Your task to perform on an android device: turn off wifi Image 0: 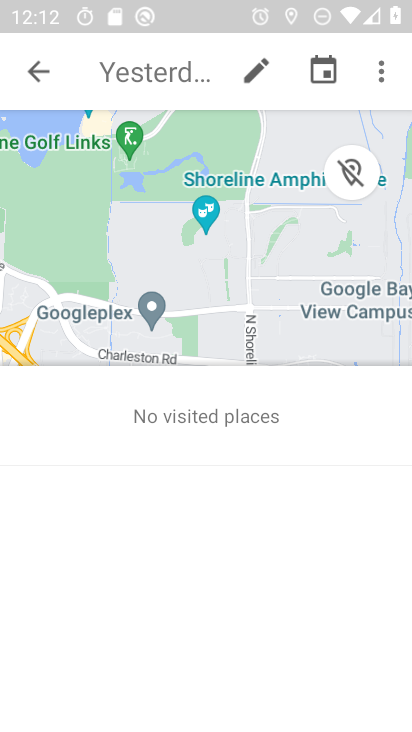
Step 0: press home button
Your task to perform on an android device: turn off wifi Image 1: 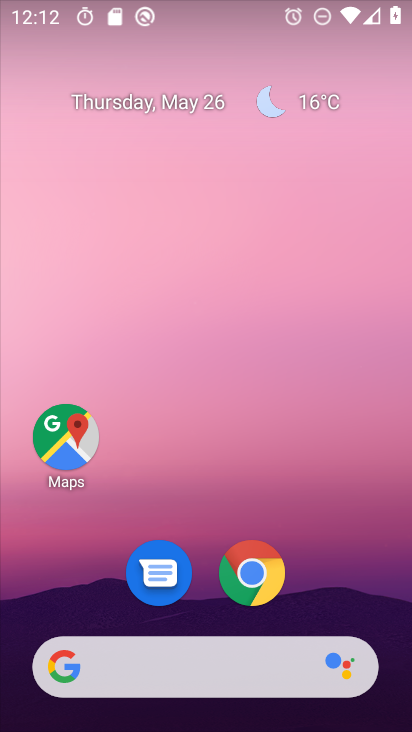
Step 1: drag from (357, 580) to (376, 23)
Your task to perform on an android device: turn off wifi Image 2: 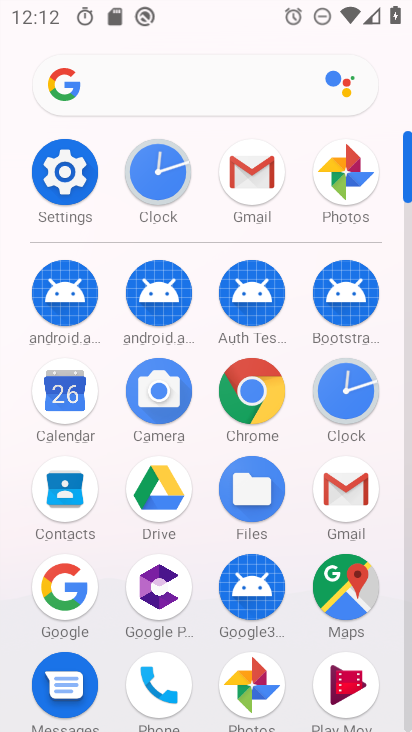
Step 2: click (57, 169)
Your task to perform on an android device: turn off wifi Image 3: 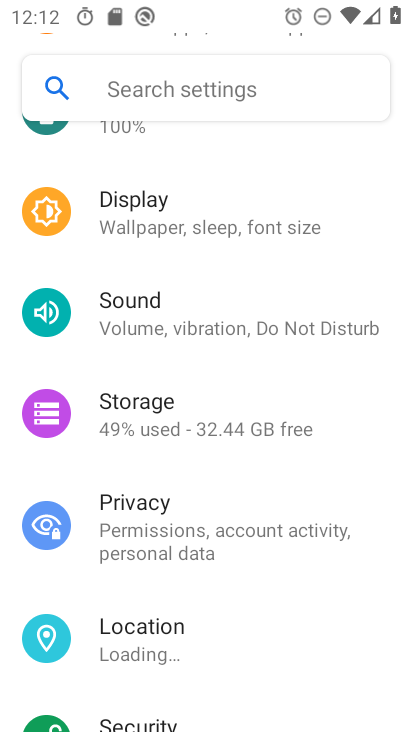
Step 3: drag from (239, 168) to (260, 405)
Your task to perform on an android device: turn off wifi Image 4: 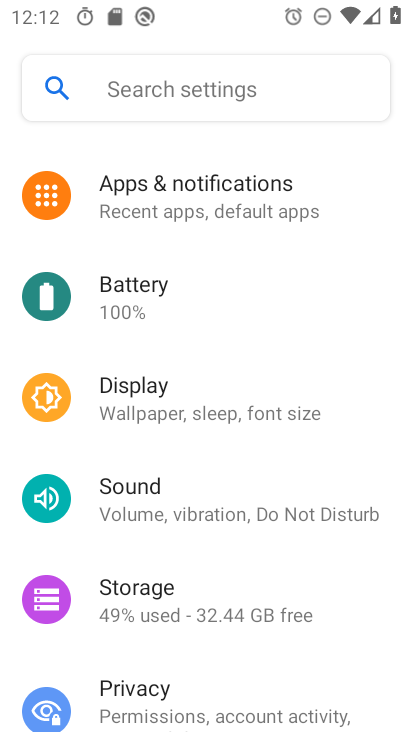
Step 4: drag from (253, 235) to (262, 463)
Your task to perform on an android device: turn off wifi Image 5: 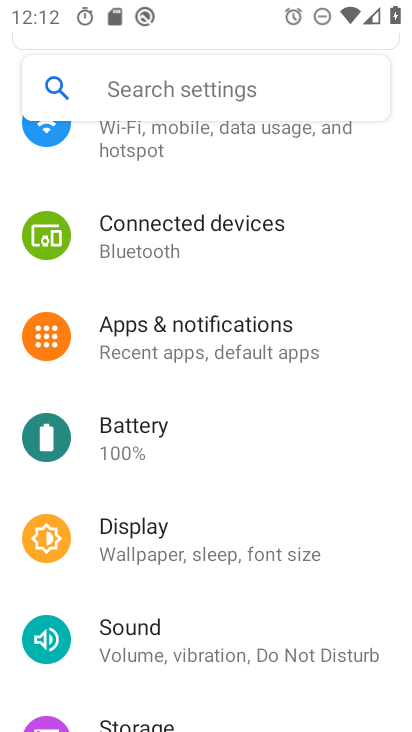
Step 5: drag from (191, 185) to (202, 377)
Your task to perform on an android device: turn off wifi Image 6: 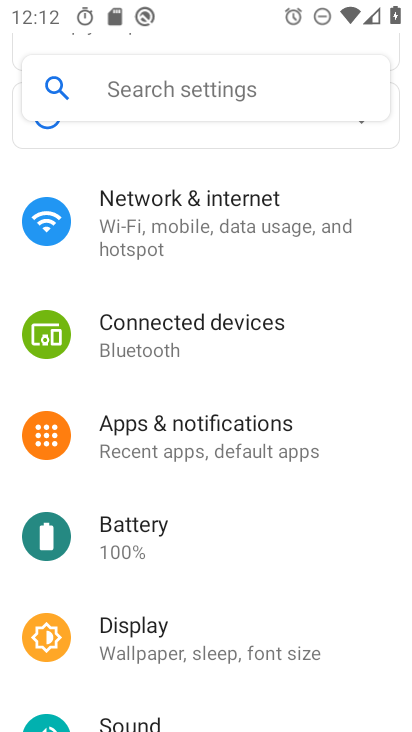
Step 6: click (162, 233)
Your task to perform on an android device: turn off wifi Image 7: 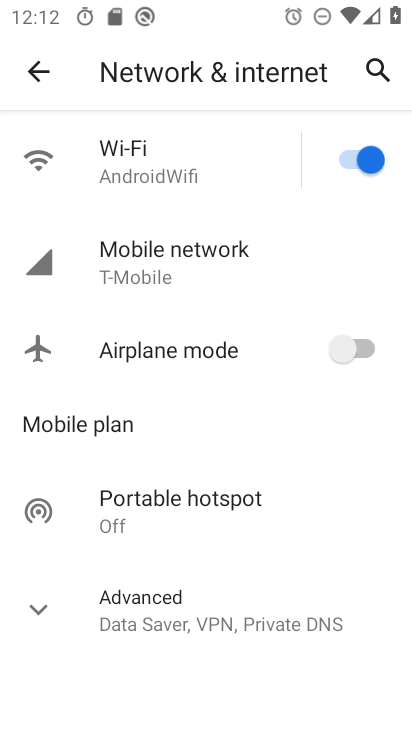
Step 7: click (356, 161)
Your task to perform on an android device: turn off wifi Image 8: 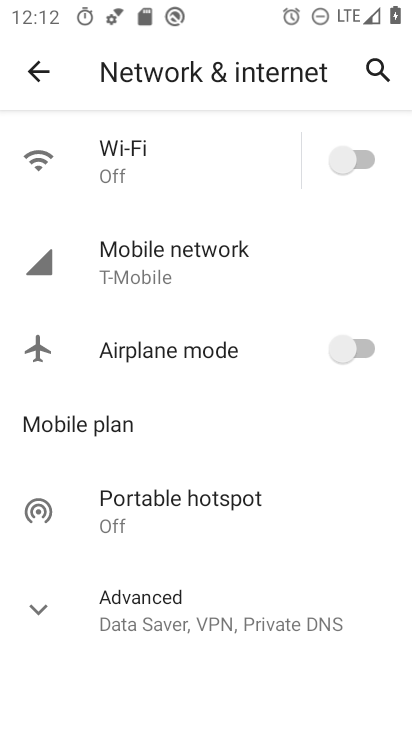
Step 8: task complete